Your task to perform on an android device: open the mobile data screen to see how much data has been used Image 0: 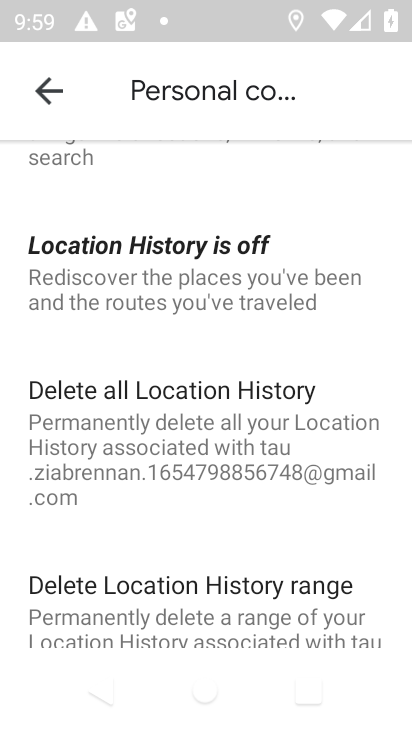
Step 0: press home button
Your task to perform on an android device: open the mobile data screen to see how much data has been used Image 1: 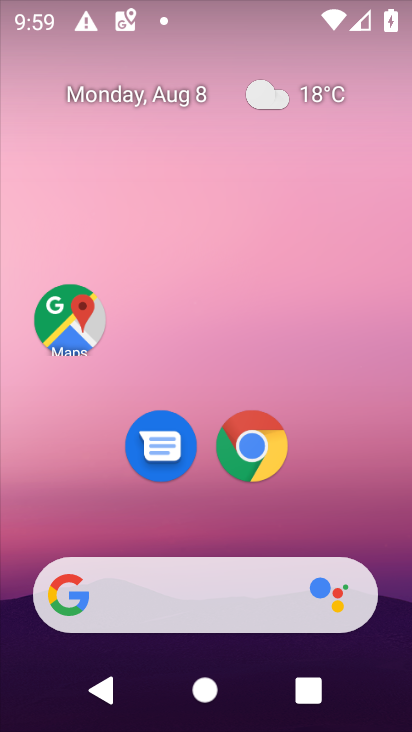
Step 1: drag from (397, 591) to (366, 131)
Your task to perform on an android device: open the mobile data screen to see how much data has been used Image 2: 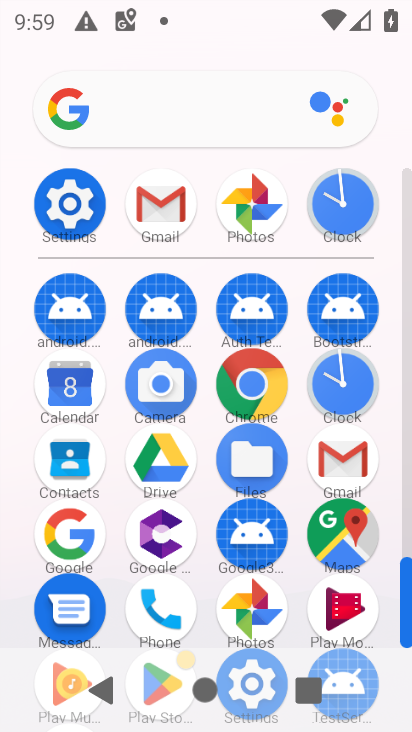
Step 2: click (66, 204)
Your task to perform on an android device: open the mobile data screen to see how much data has been used Image 3: 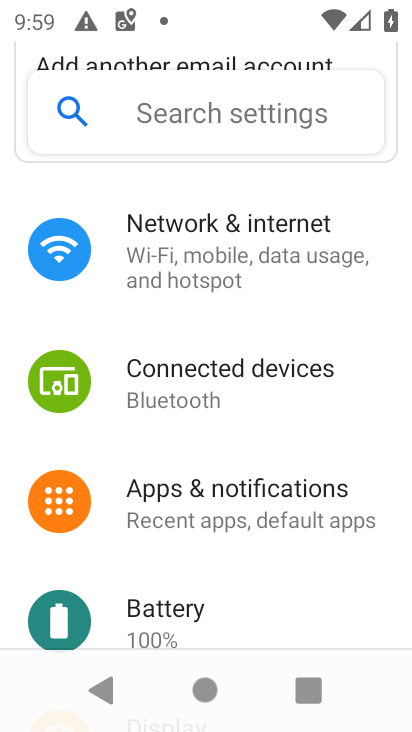
Step 3: click (161, 240)
Your task to perform on an android device: open the mobile data screen to see how much data has been used Image 4: 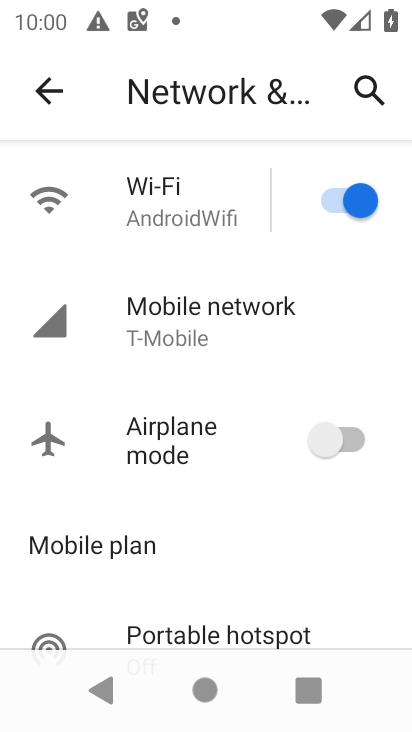
Step 4: click (186, 316)
Your task to perform on an android device: open the mobile data screen to see how much data has been used Image 5: 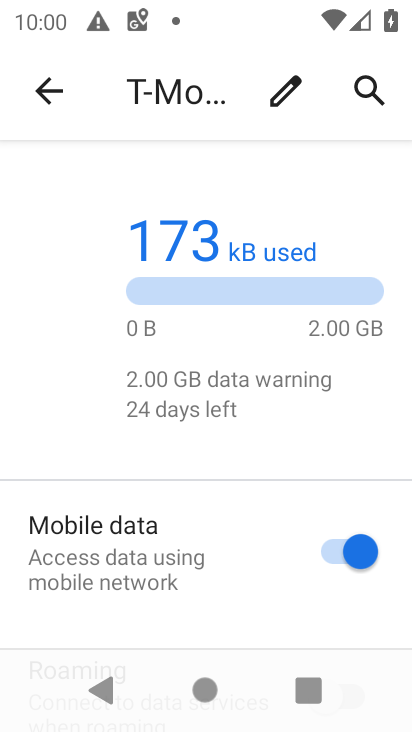
Step 5: task complete